Your task to perform on an android device: check storage Image 0: 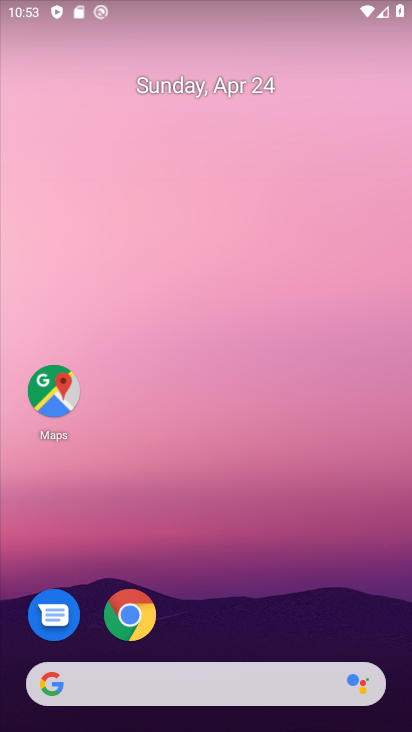
Step 0: drag from (213, 593) to (236, 291)
Your task to perform on an android device: check storage Image 1: 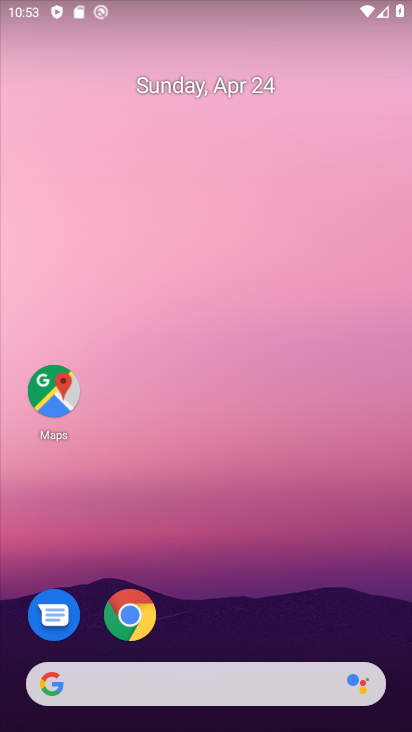
Step 1: drag from (219, 626) to (246, 129)
Your task to perform on an android device: check storage Image 2: 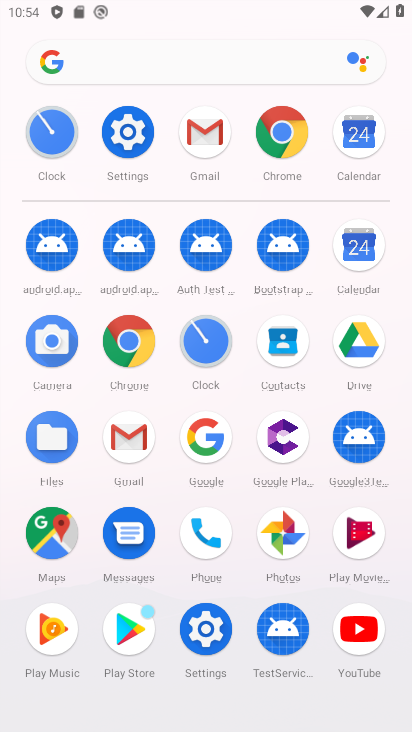
Step 2: click (206, 622)
Your task to perform on an android device: check storage Image 3: 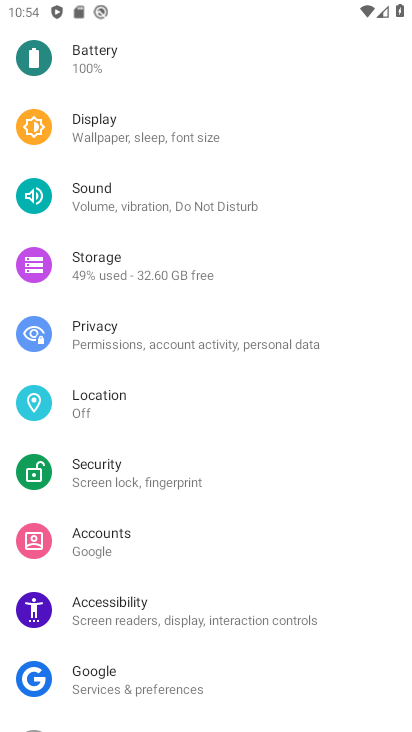
Step 3: click (125, 260)
Your task to perform on an android device: check storage Image 4: 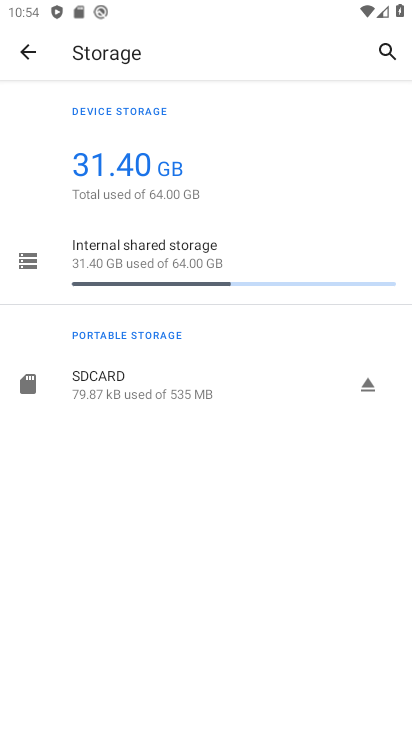
Step 4: task complete